Your task to perform on an android device: move an email to a new category in the gmail app Image 0: 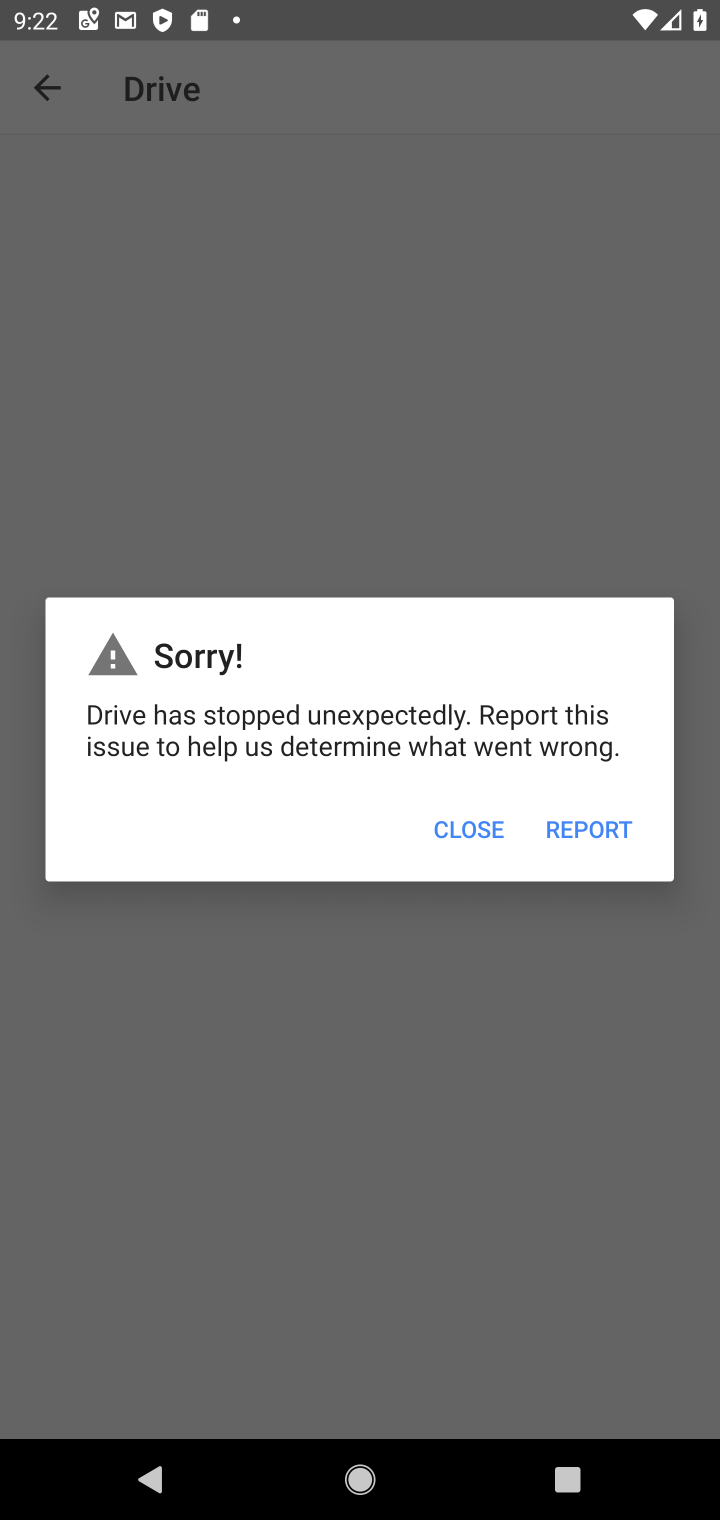
Step 0: press back button
Your task to perform on an android device: move an email to a new category in the gmail app Image 1: 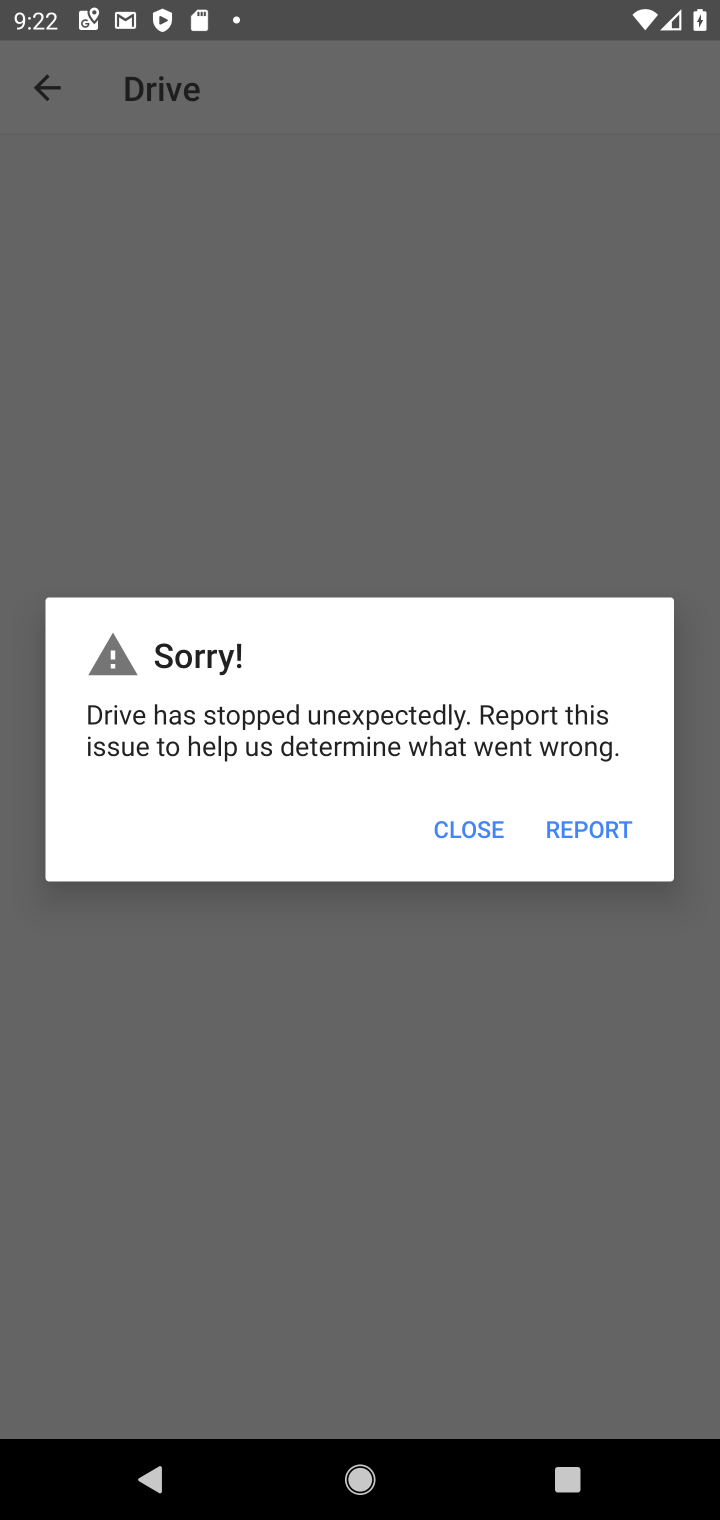
Step 1: press home button
Your task to perform on an android device: move an email to a new category in the gmail app Image 2: 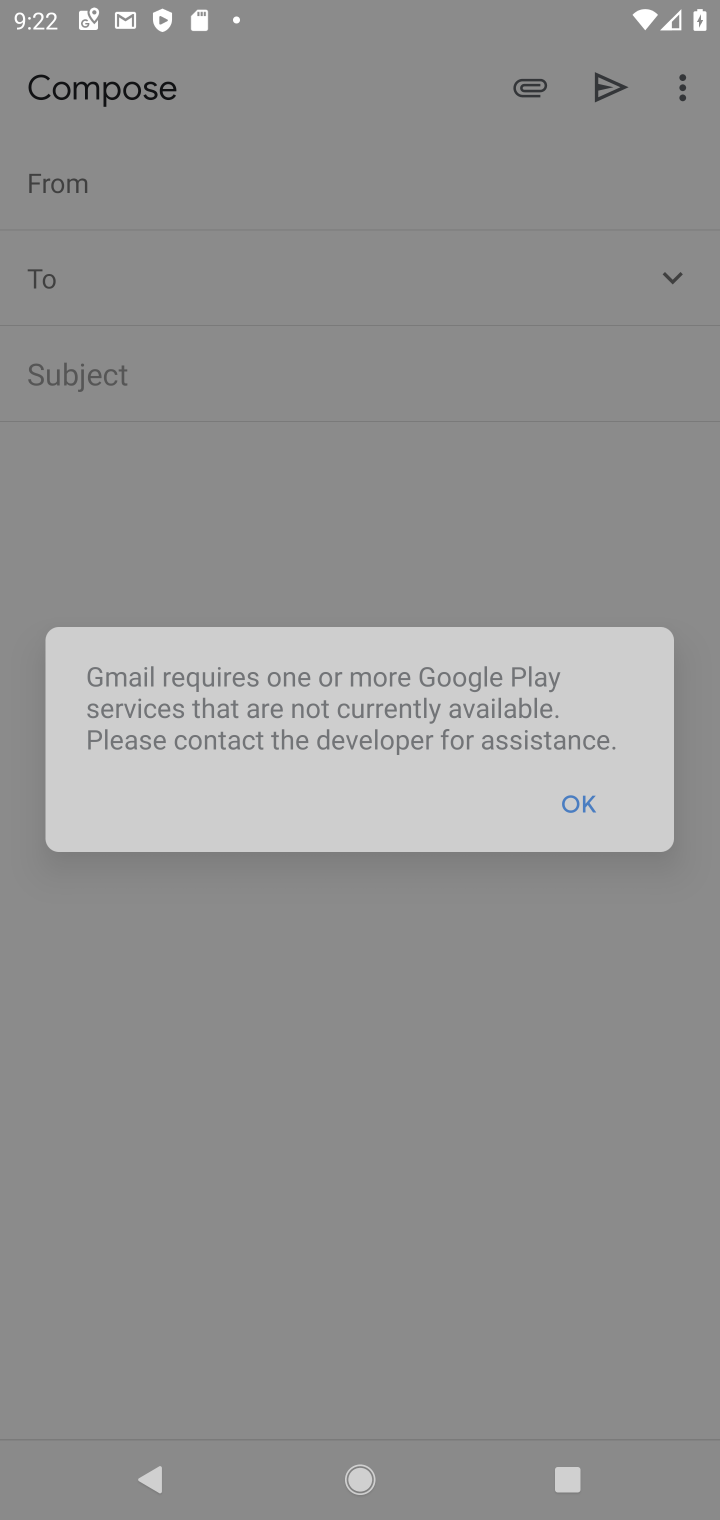
Step 2: click (455, 808)
Your task to perform on an android device: move an email to a new category in the gmail app Image 3: 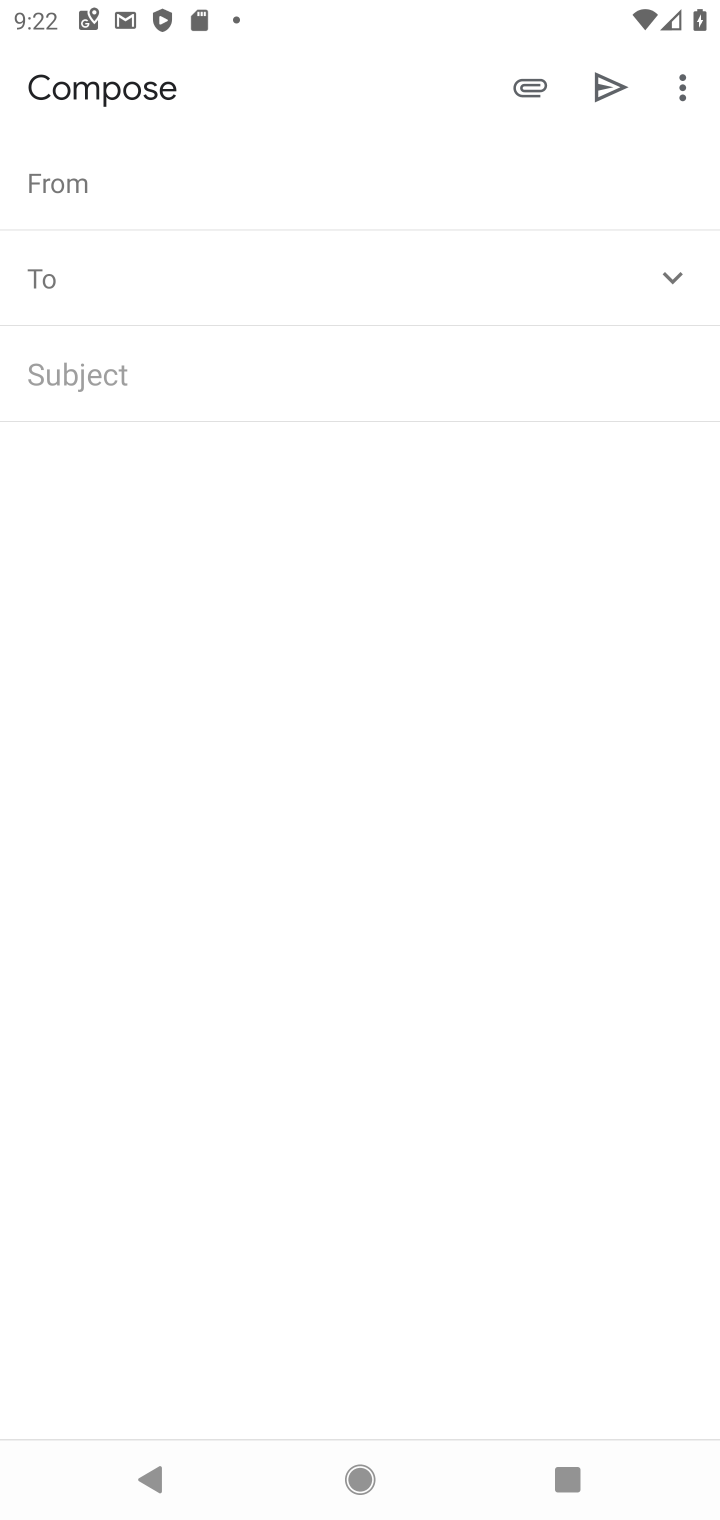
Step 3: press home button
Your task to perform on an android device: move an email to a new category in the gmail app Image 4: 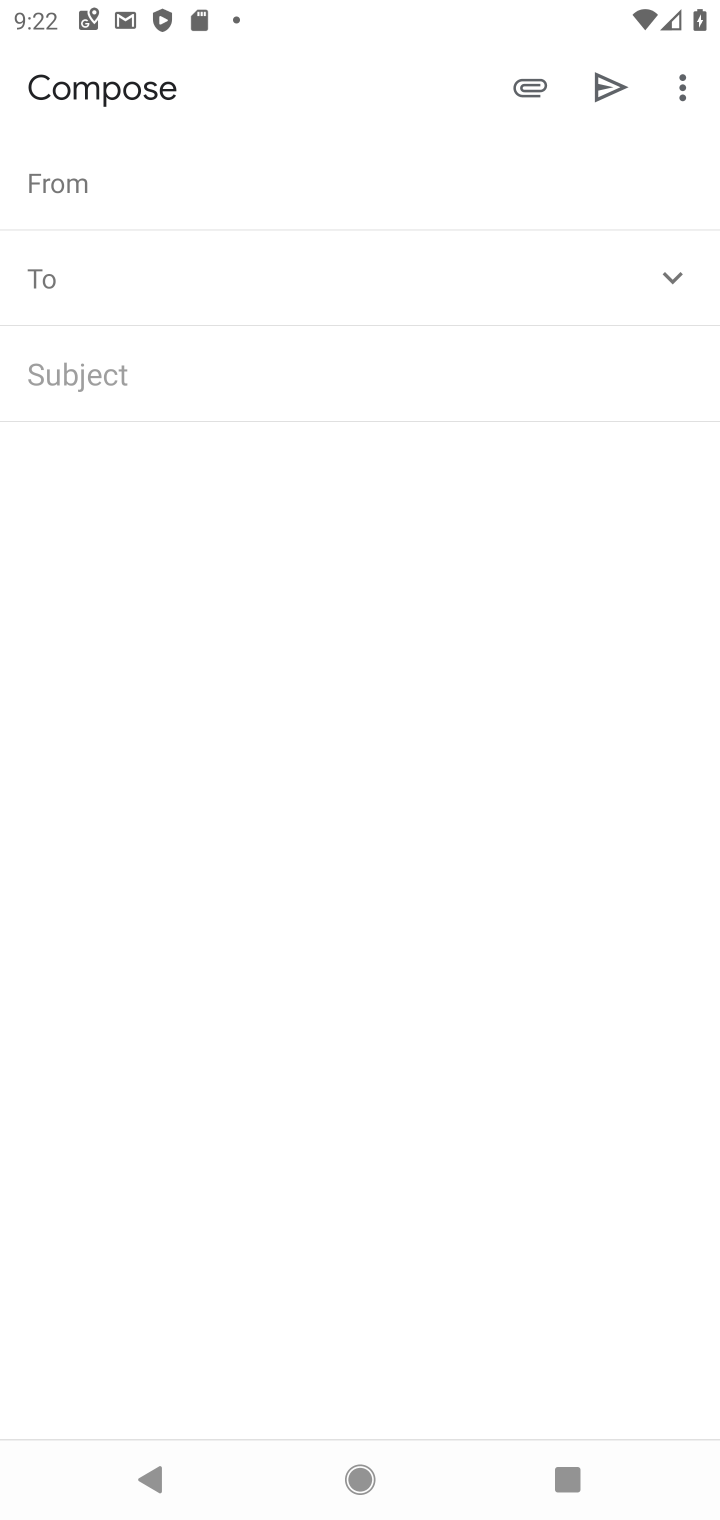
Step 4: click (526, 792)
Your task to perform on an android device: move an email to a new category in the gmail app Image 5: 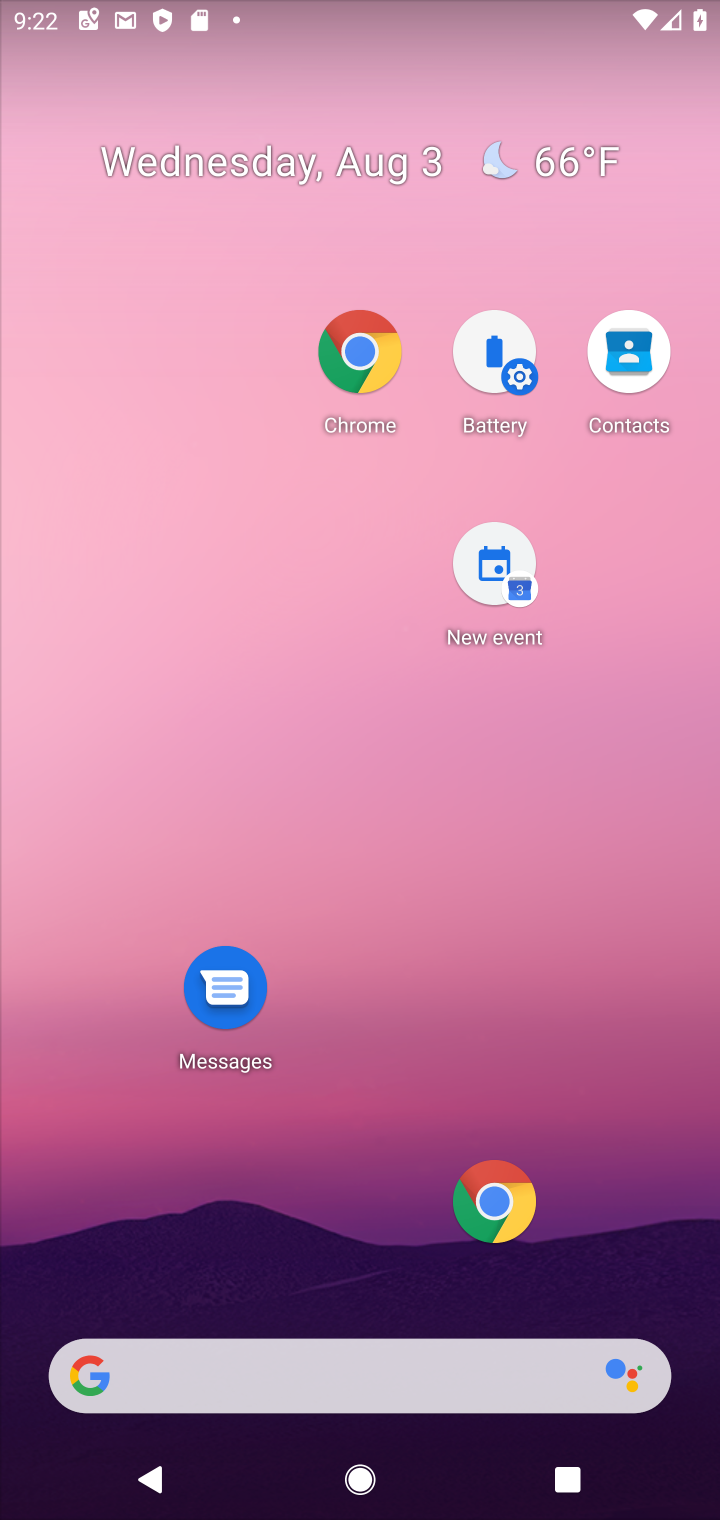
Step 5: press back button
Your task to perform on an android device: move an email to a new category in the gmail app Image 6: 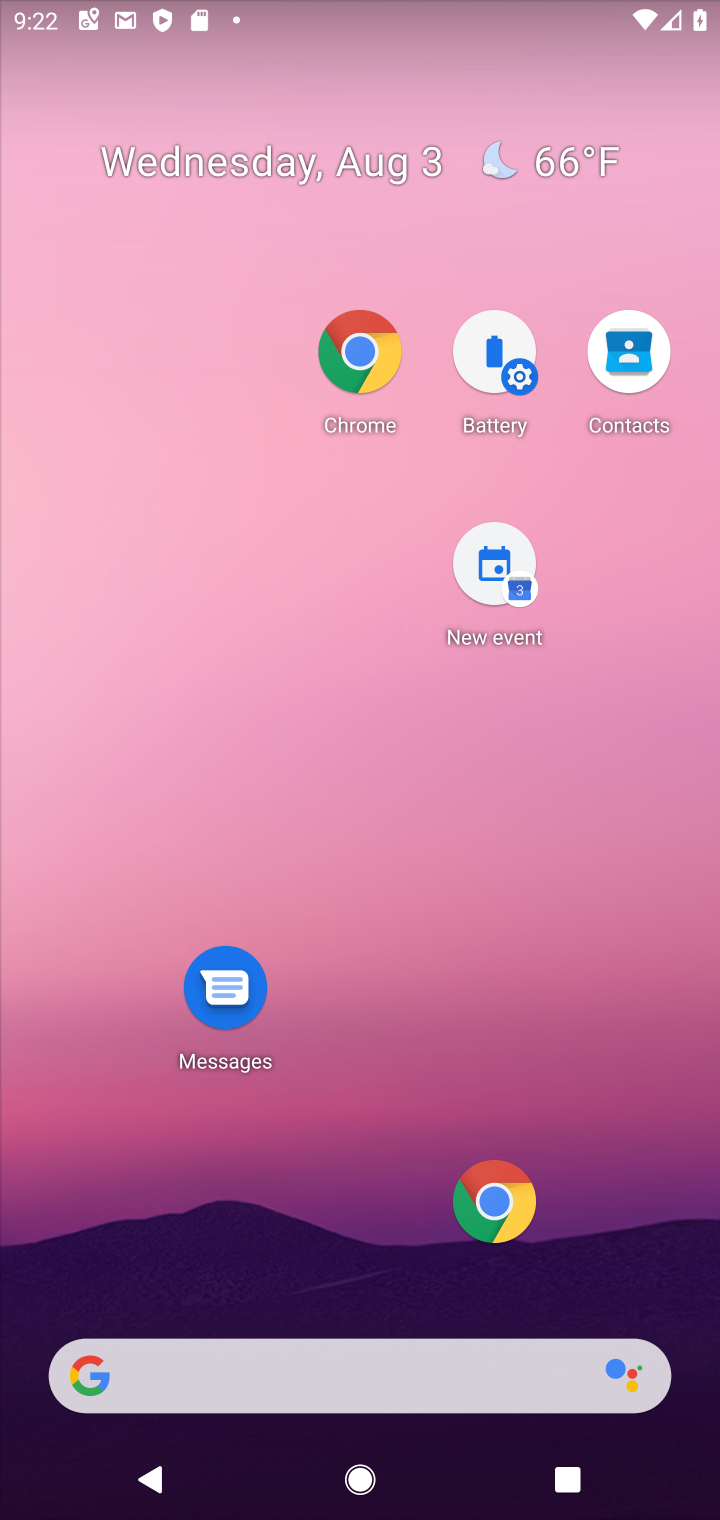
Step 6: press back button
Your task to perform on an android device: move an email to a new category in the gmail app Image 7: 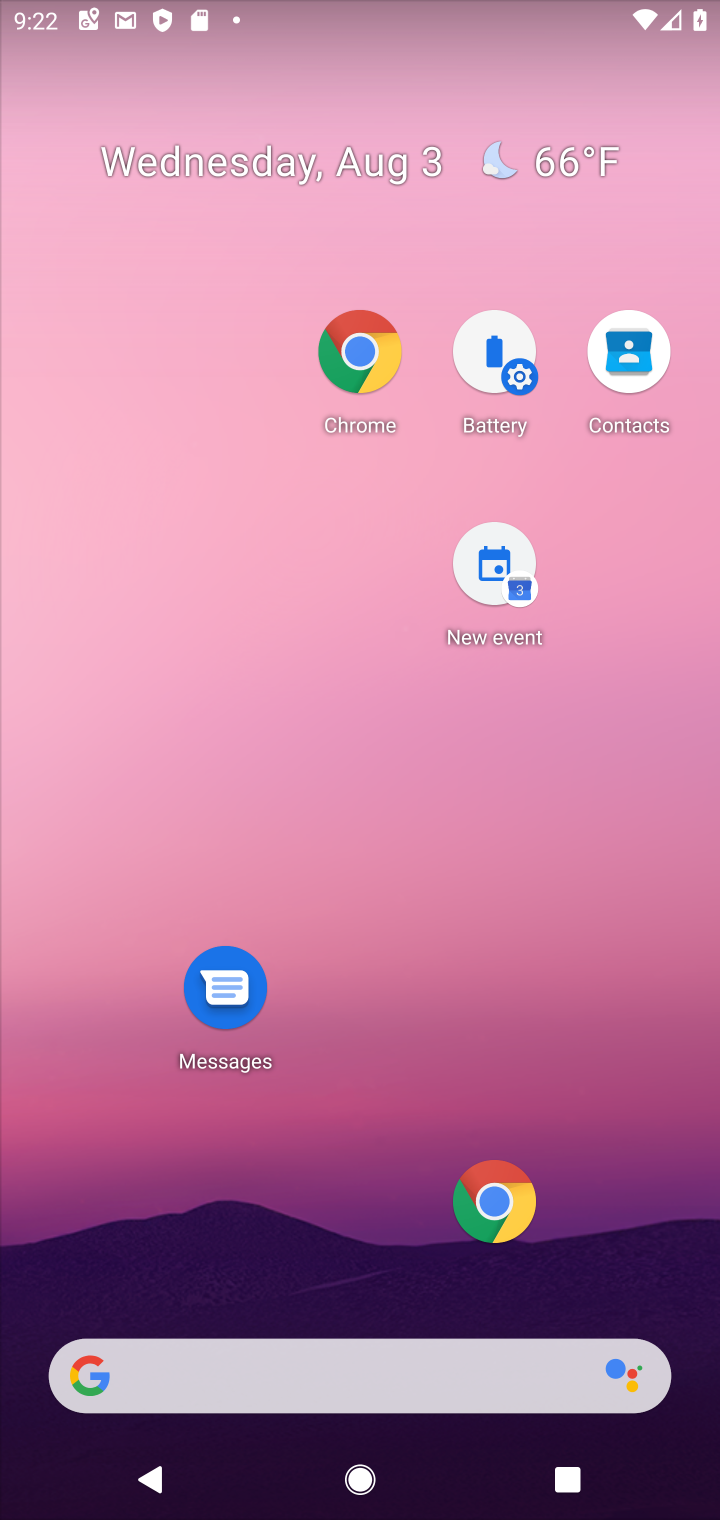
Step 7: drag from (321, 812) to (226, 199)
Your task to perform on an android device: move an email to a new category in the gmail app Image 8: 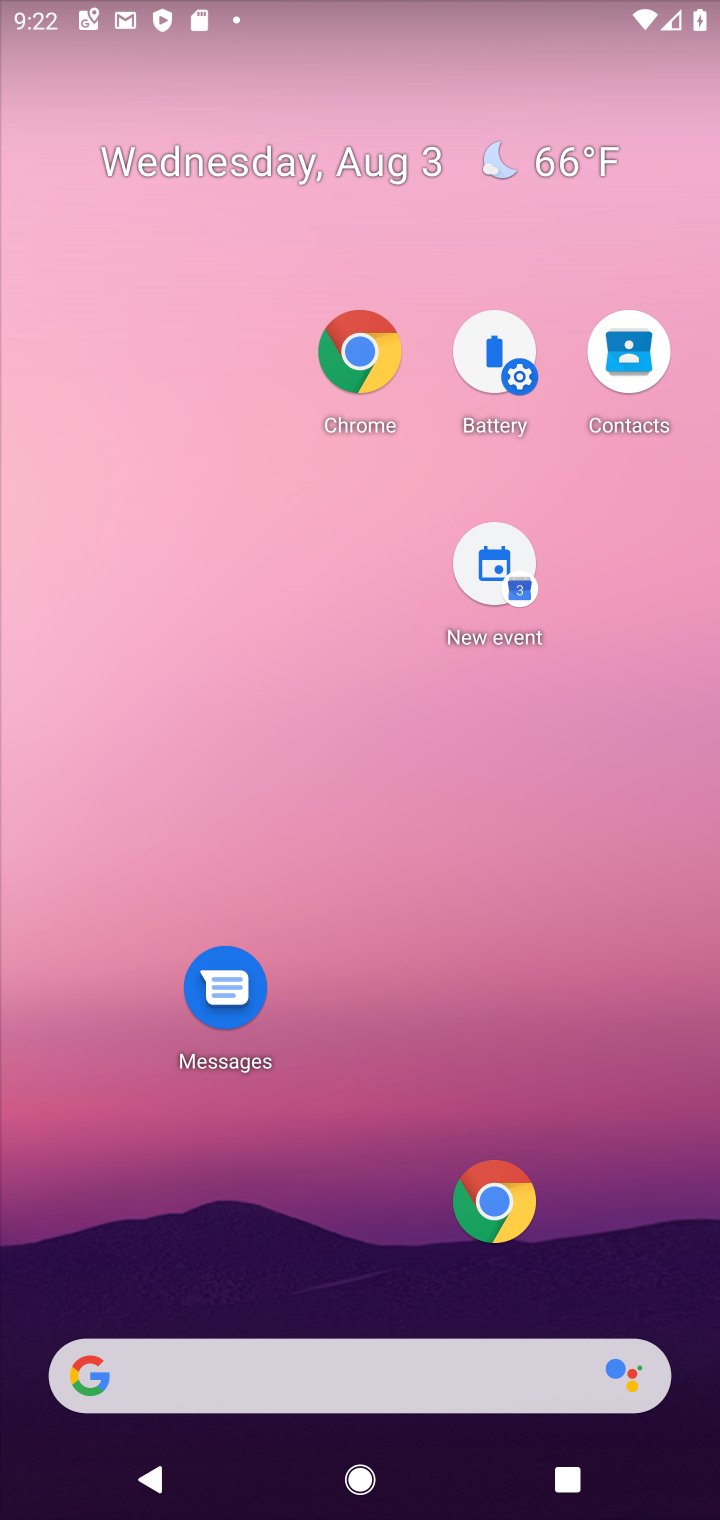
Step 8: drag from (424, 955) to (311, 164)
Your task to perform on an android device: move an email to a new category in the gmail app Image 9: 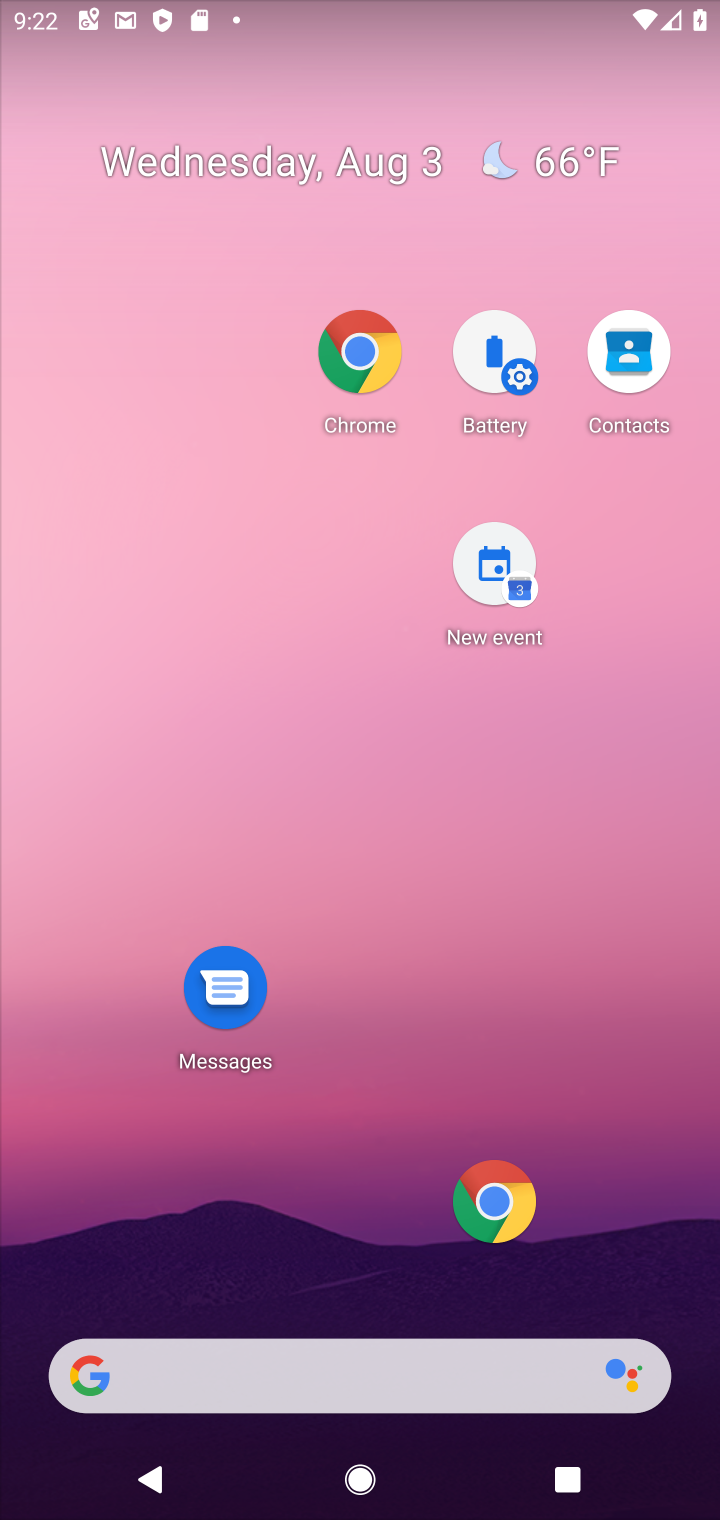
Step 9: drag from (367, 1086) to (236, 182)
Your task to perform on an android device: move an email to a new category in the gmail app Image 10: 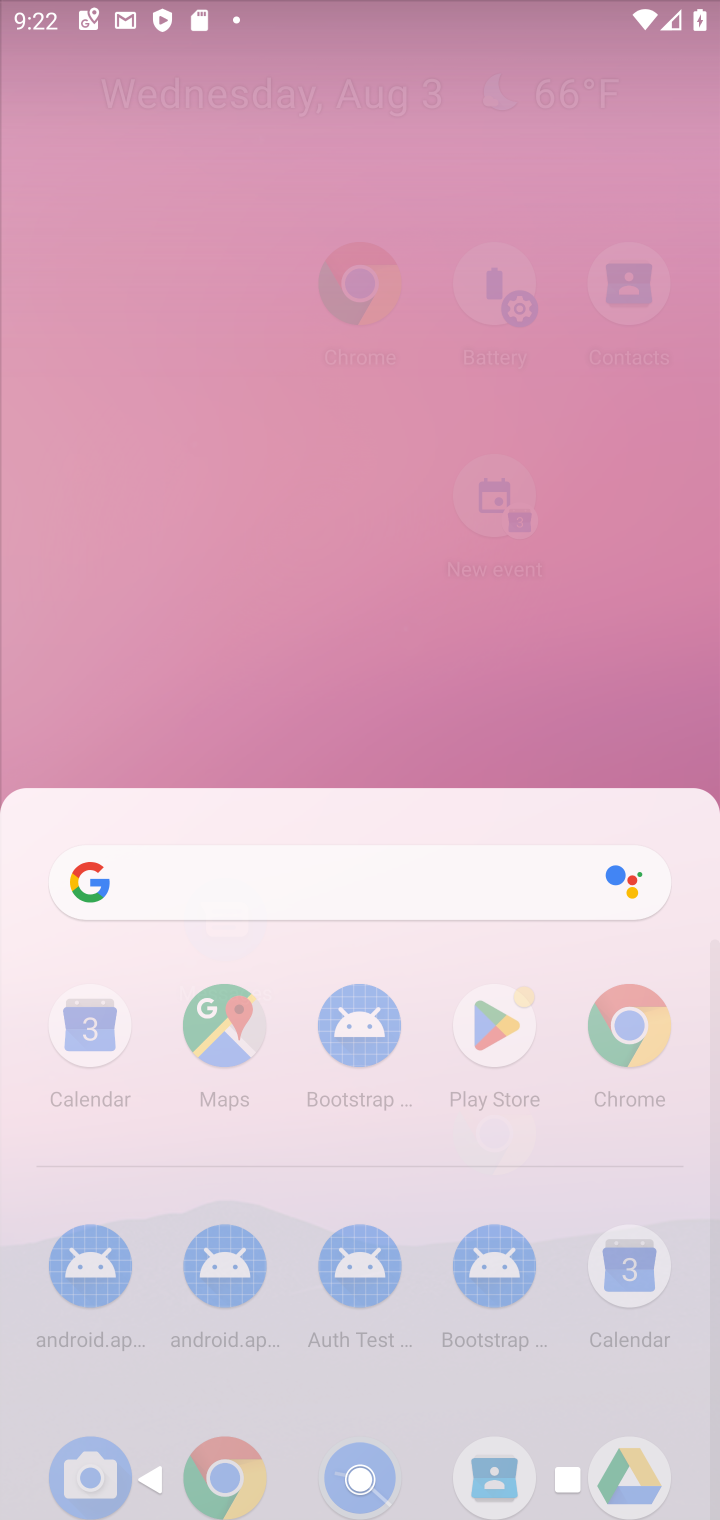
Step 10: drag from (420, 663) to (307, 51)
Your task to perform on an android device: move an email to a new category in the gmail app Image 11: 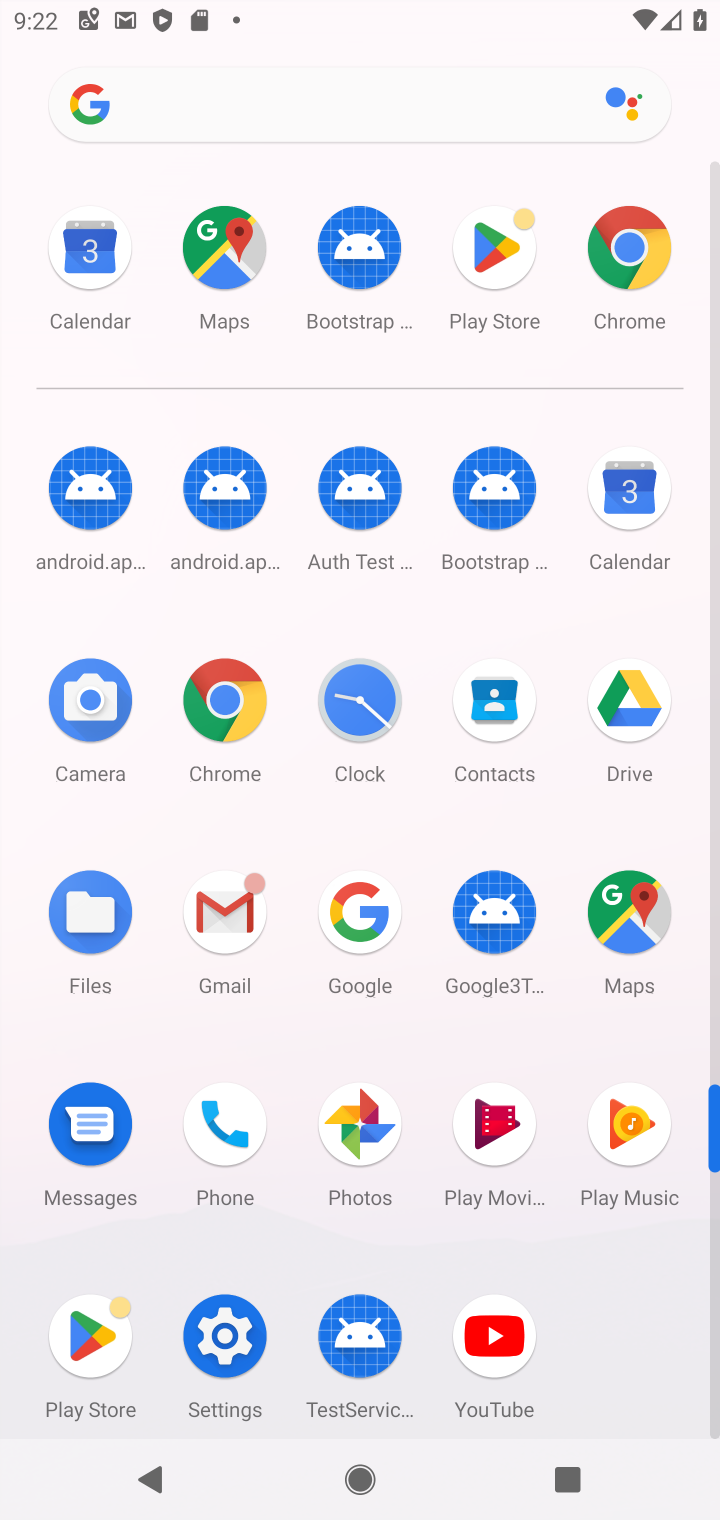
Step 11: click (233, 909)
Your task to perform on an android device: move an email to a new category in the gmail app Image 12: 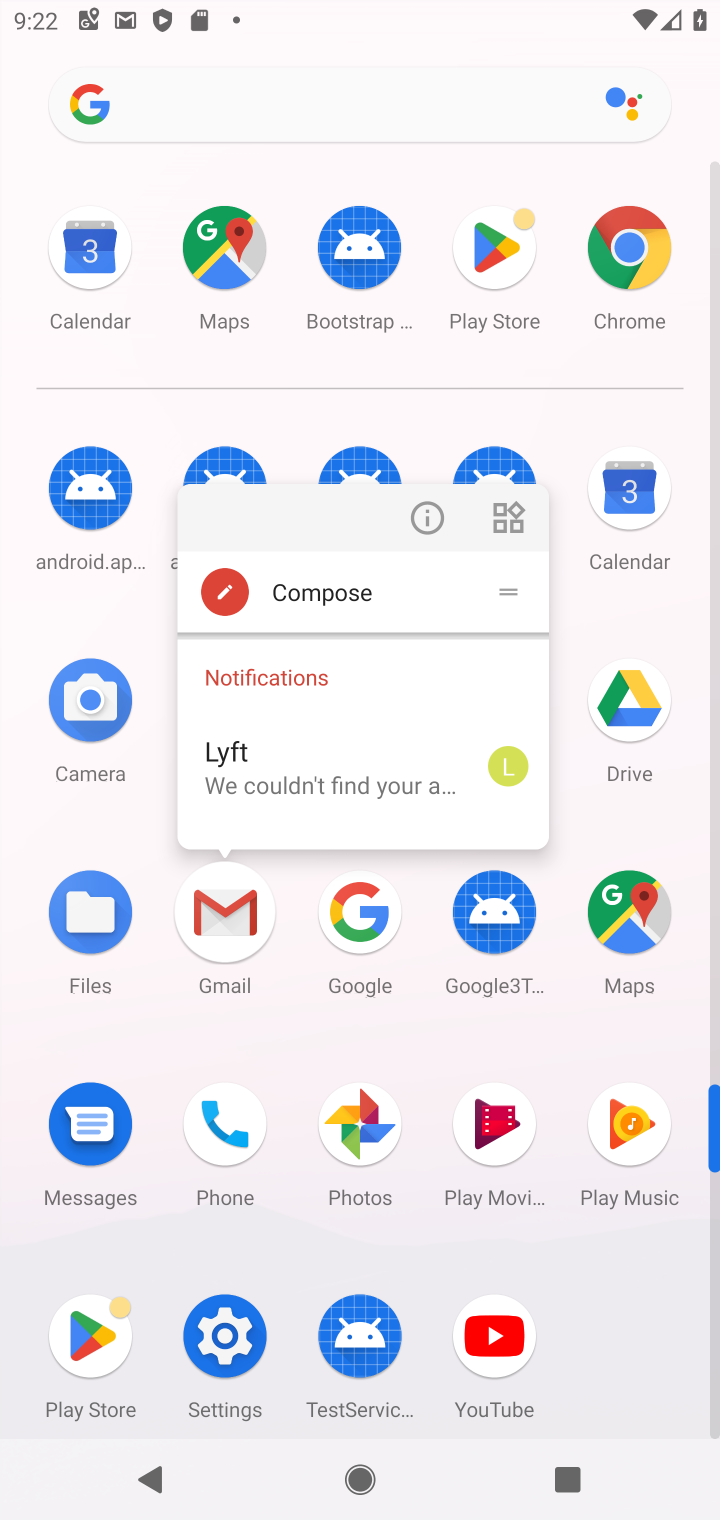
Step 12: click (233, 909)
Your task to perform on an android device: move an email to a new category in the gmail app Image 13: 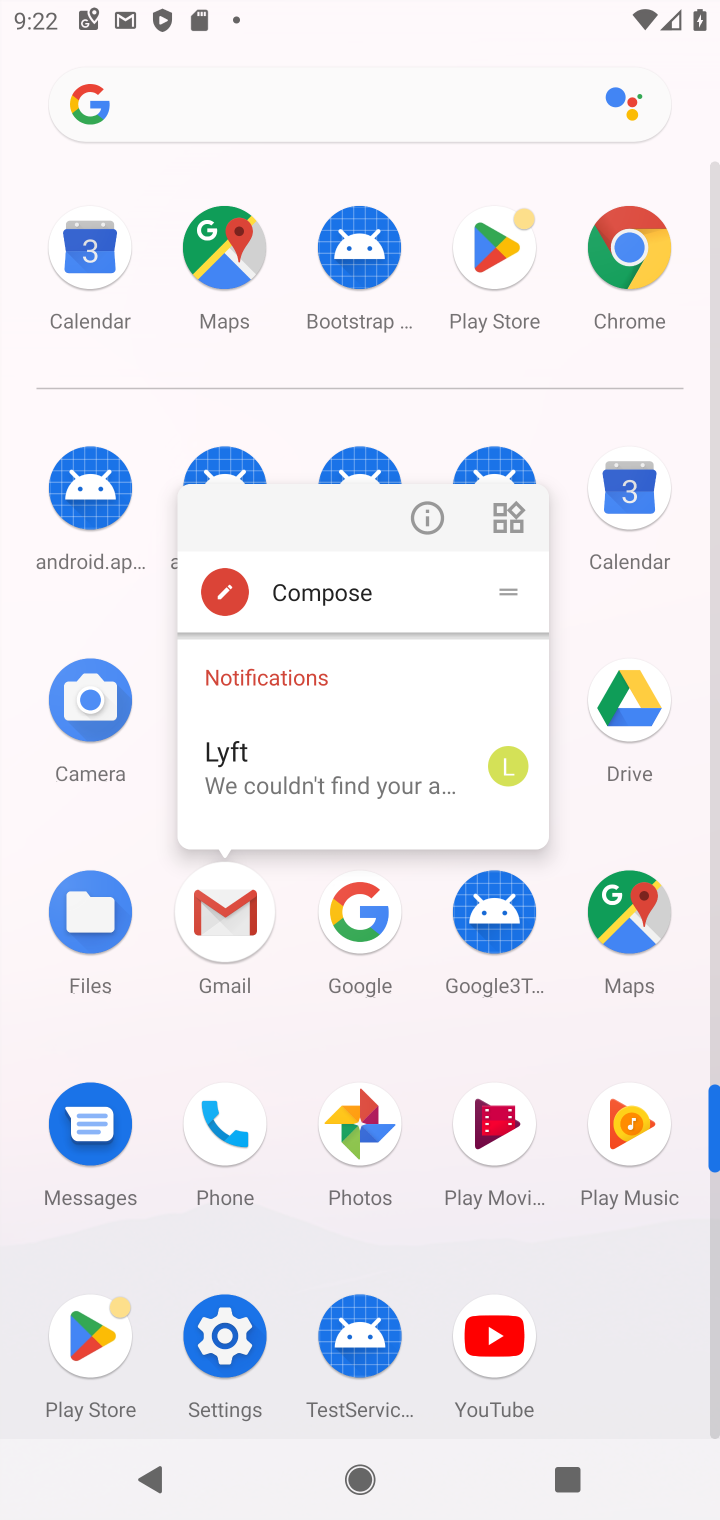
Step 13: click (235, 911)
Your task to perform on an android device: move an email to a new category in the gmail app Image 14: 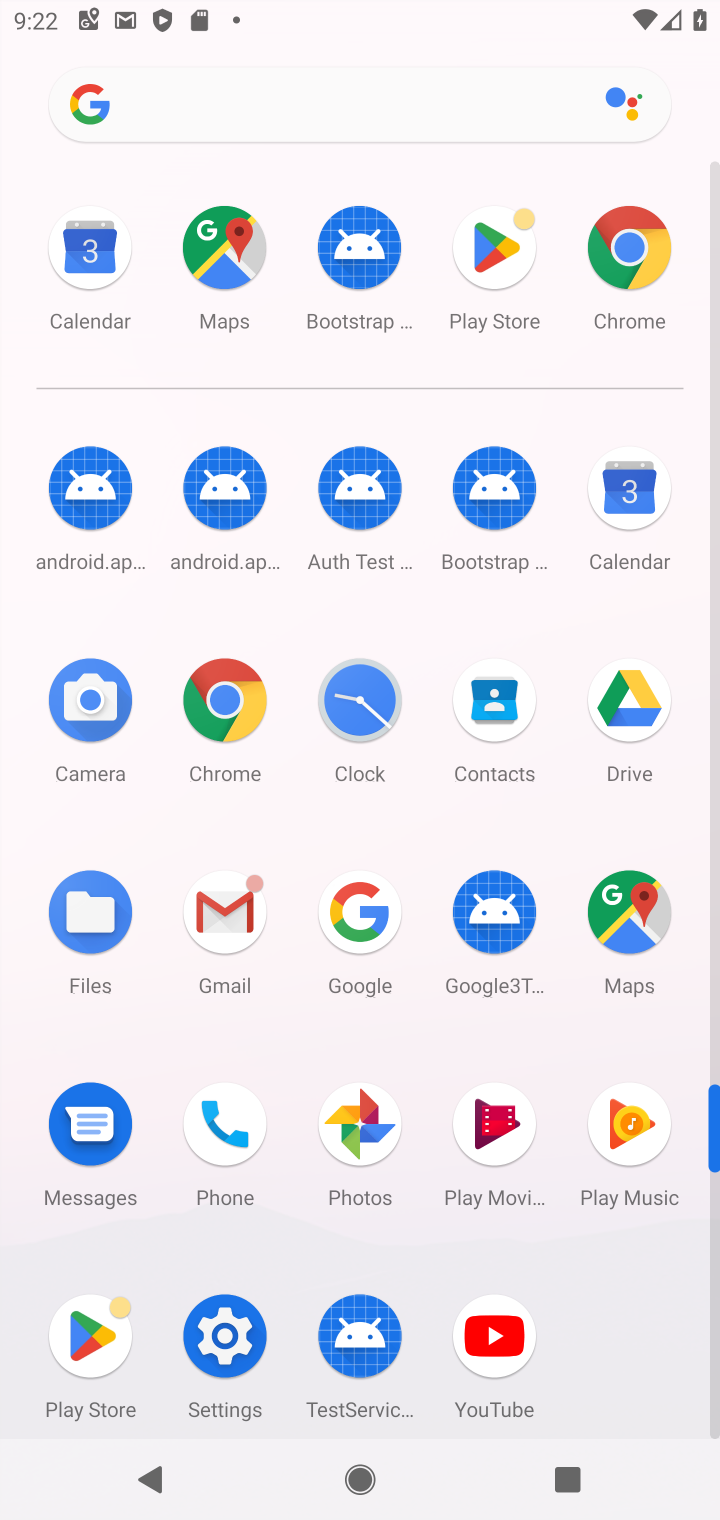
Step 14: click (227, 914)
Your task to perform on an android device: move an email to a new category in the gmail app Image 15: 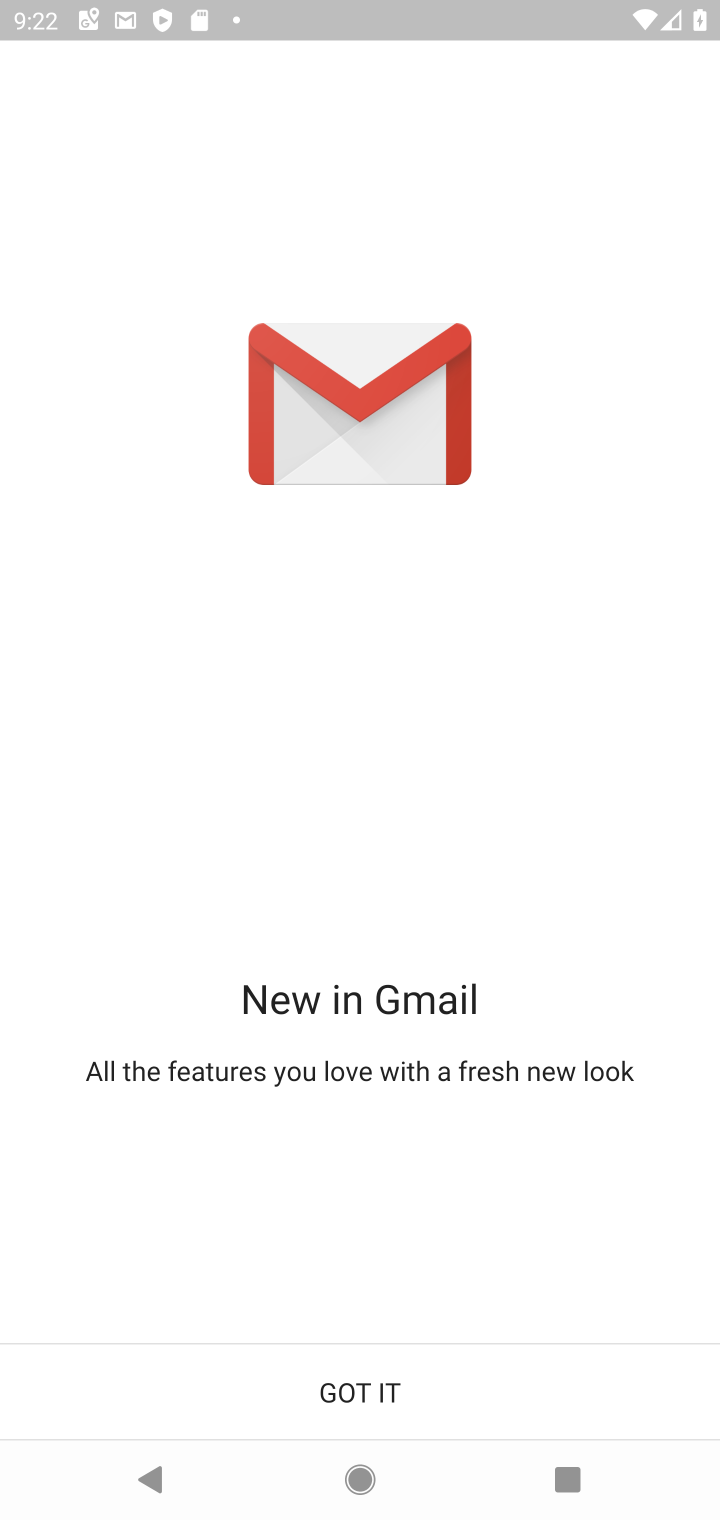
Step 15: click (362, 1366)
Your task to perform on an android device: move an email to a new category in the gmail app Image 16: 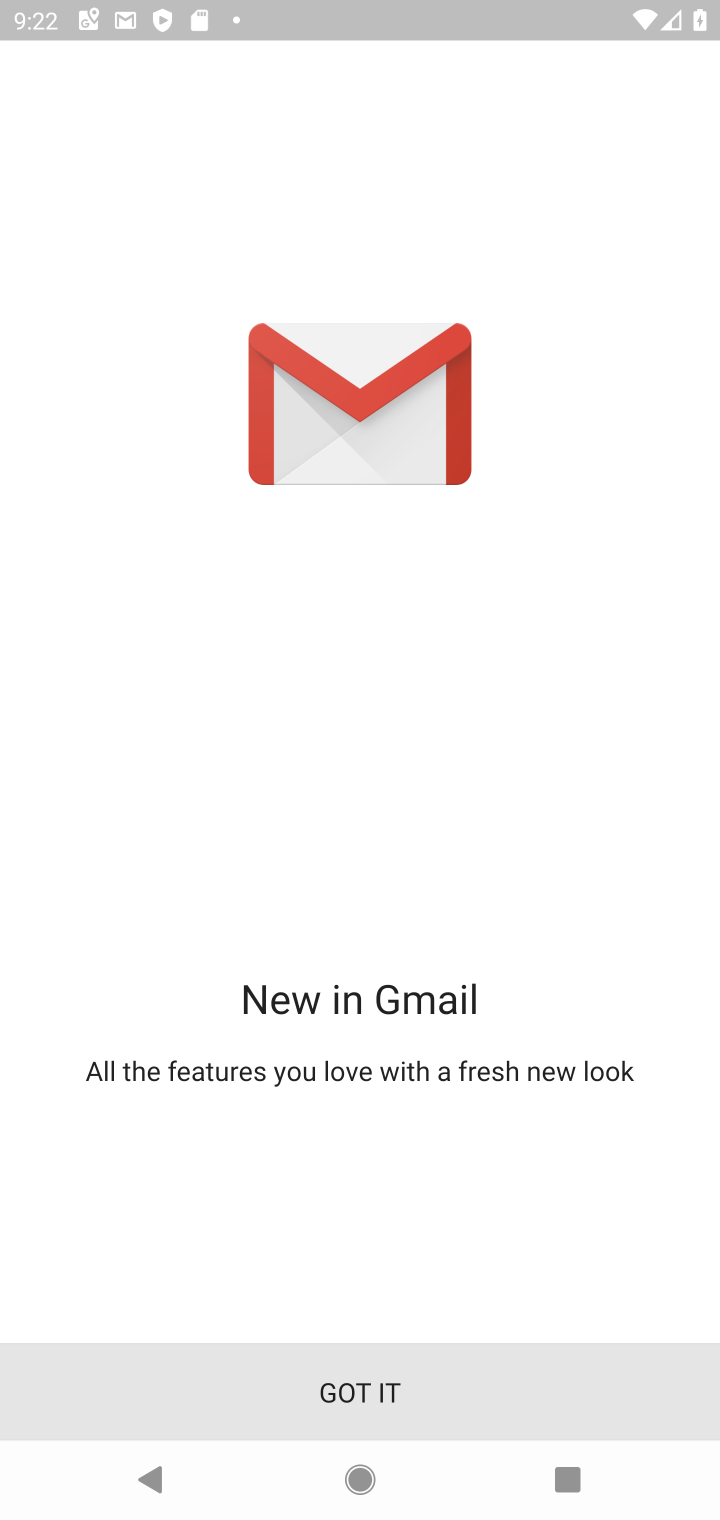
Step 16: click (371, 1364)
Your task to perform on an android device: move an email to a new category in the gmail app Image 17: 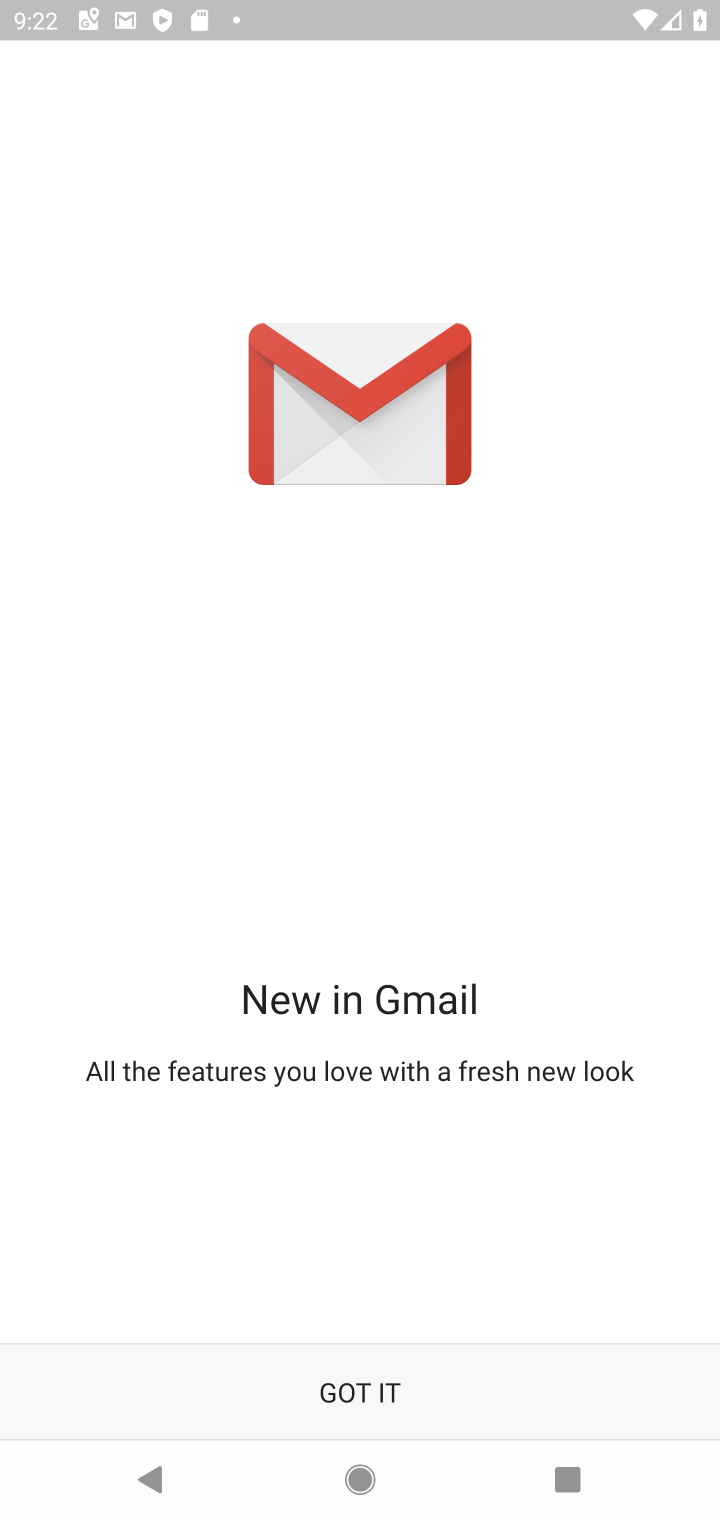
Step 17: click (371, 1364)
Your task to perform on an android device: move an email to a new category in the gmail app Image 18: 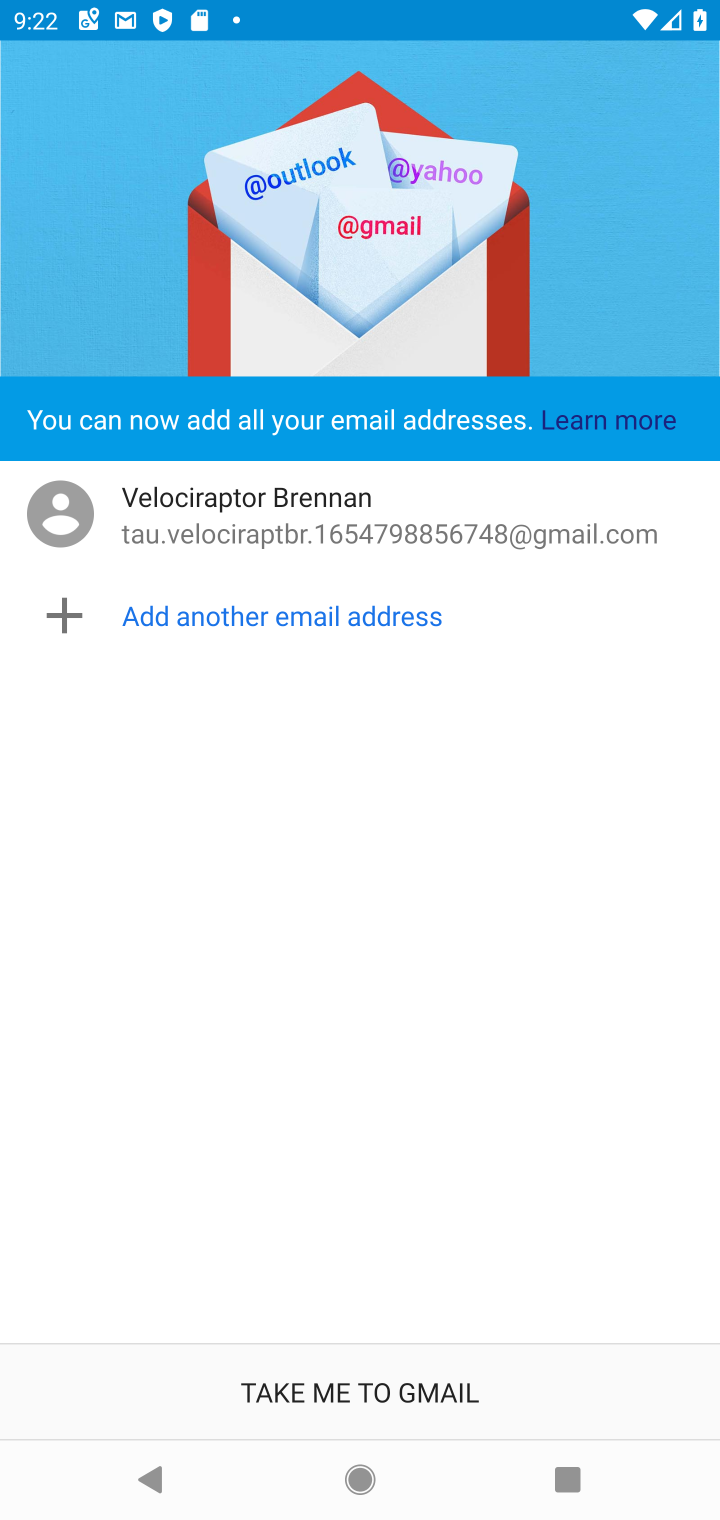
Step 18: drag from (386, 1379) to (597, 1391)
Your task to perform on an android device: move an email to a new category in the gmail app Image 19: 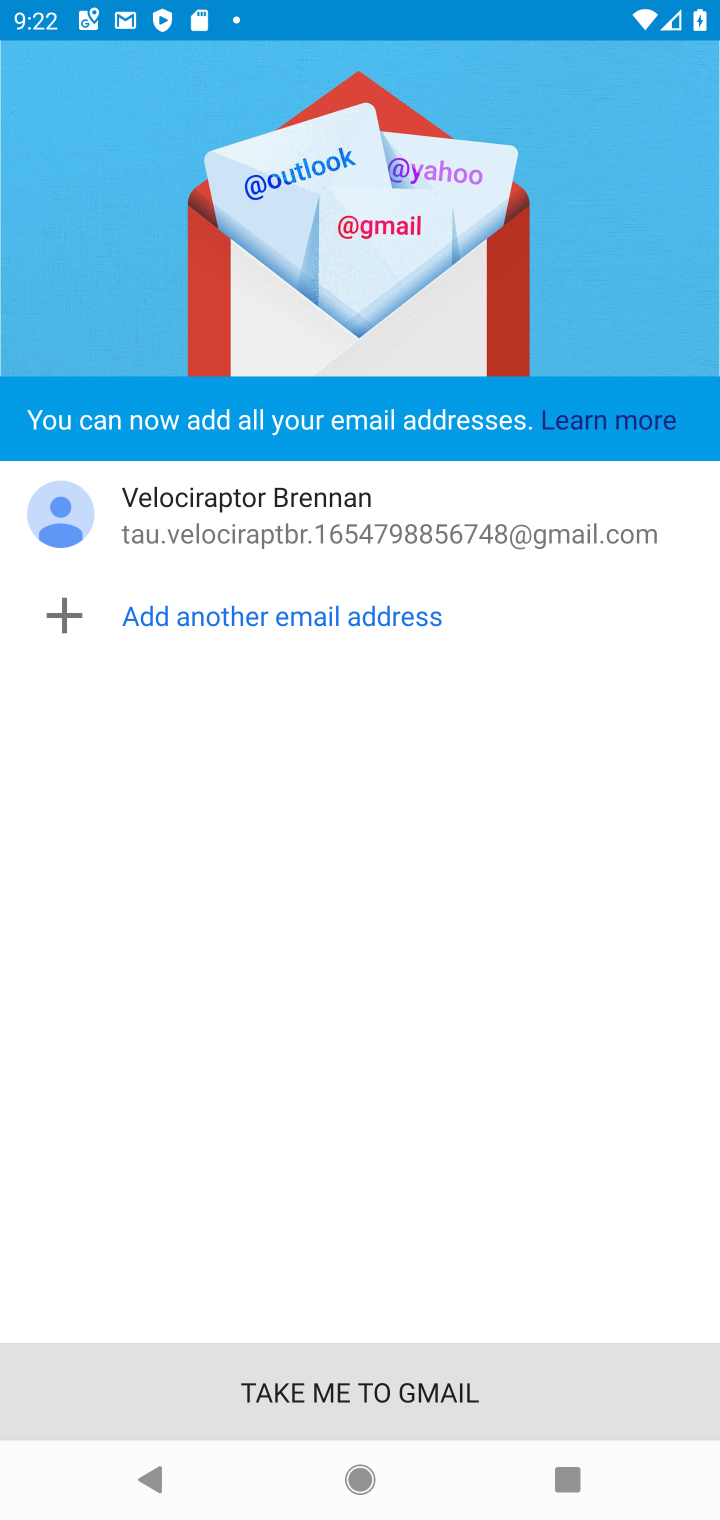
Step 19: click (396, 1358)
Your task to perform on an android device: move an email to a new category in the gmail app Image 20: 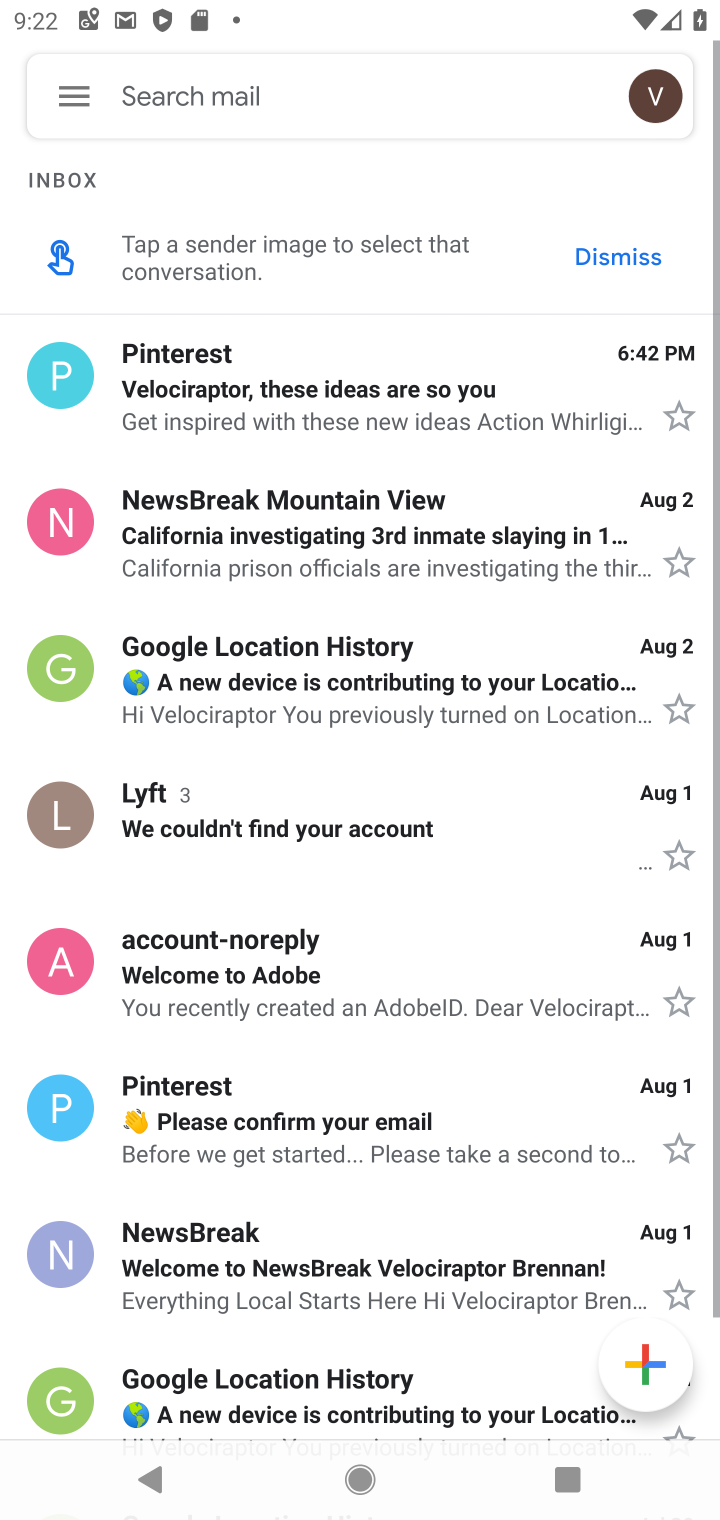
Step 20: click (672, 426)
Your task to perform on an android device: move an email to a new category in the gmail app Image 21: 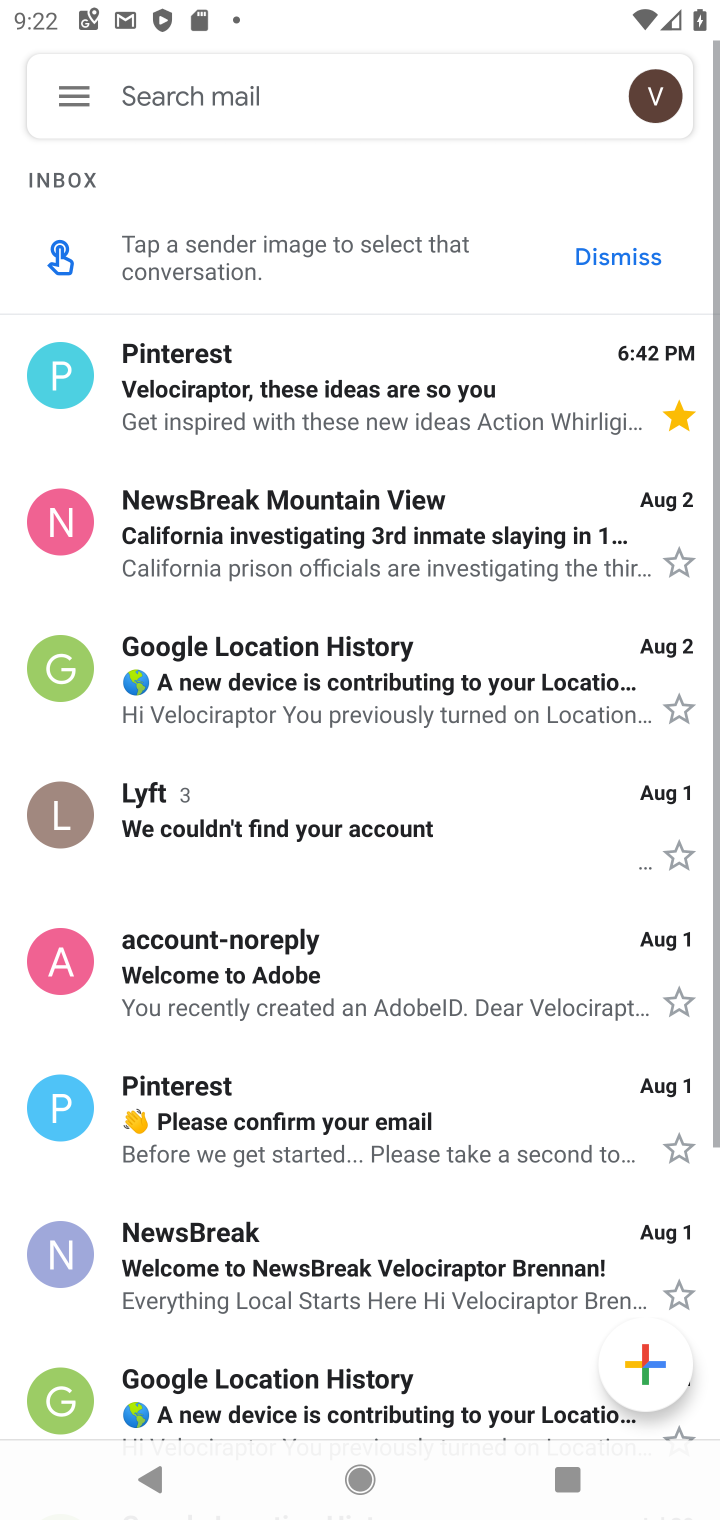
Step 21: task complete